Your task to perform on an android device: visit the assistant section in the google photos Image 0: 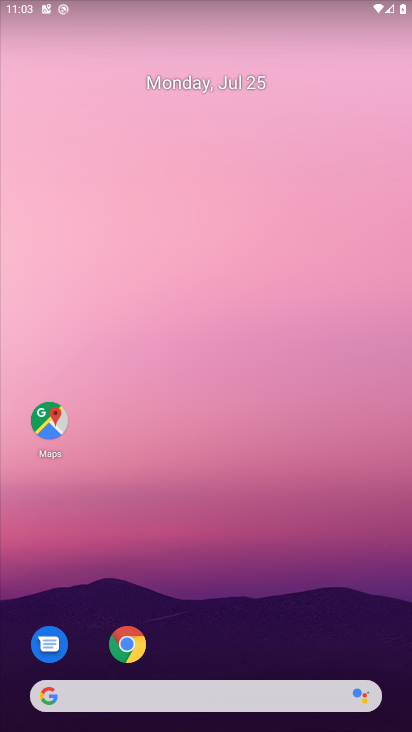
Step 0: drag from (371, 560) to (400, 23)
Your task to perform on an android device: visit the assistant section in the google photos Image 1: 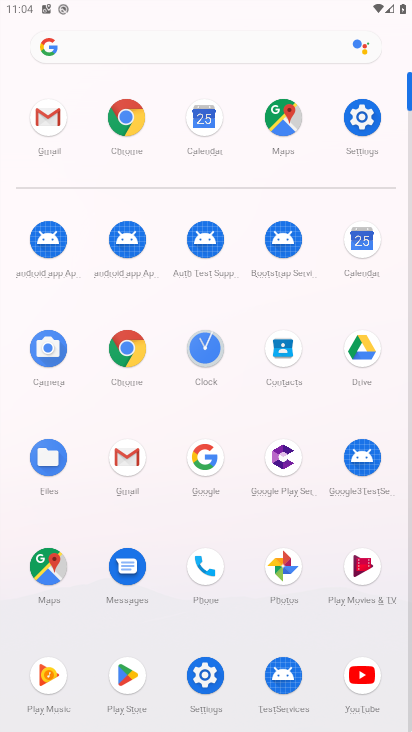
Step 1: click (286, 577)
Your task to perform on an android device: visit the assistant section in the google photos Image 2: 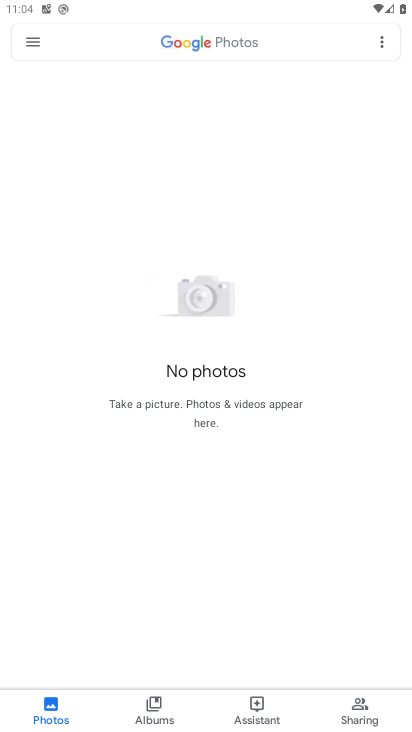
Step 2: click (254, 712)
Your task to perform on an android device: visit the assistant section in the google photos Image 3: 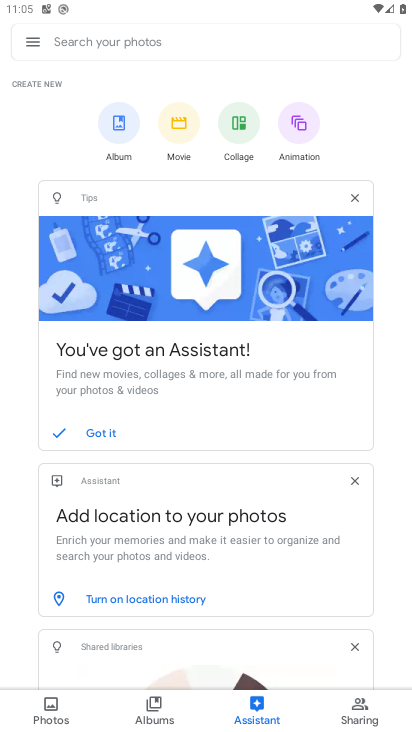
Step 3: task complete